Your task to perform on an android device: Do I have any events today? Image 0: 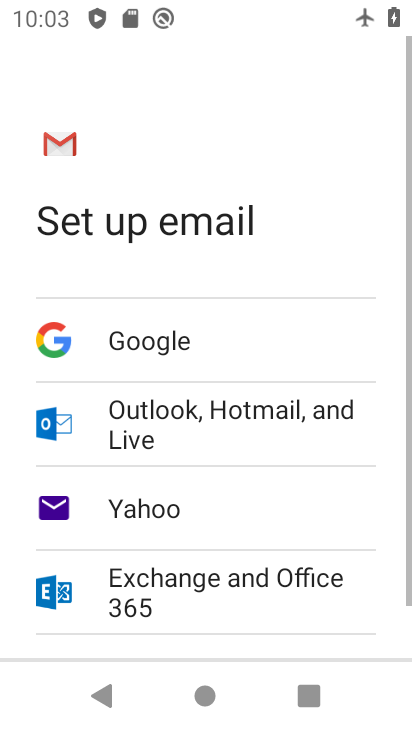
Step 0: press home button
Your task to perform on an android device: Do I have any events today? Image 1: 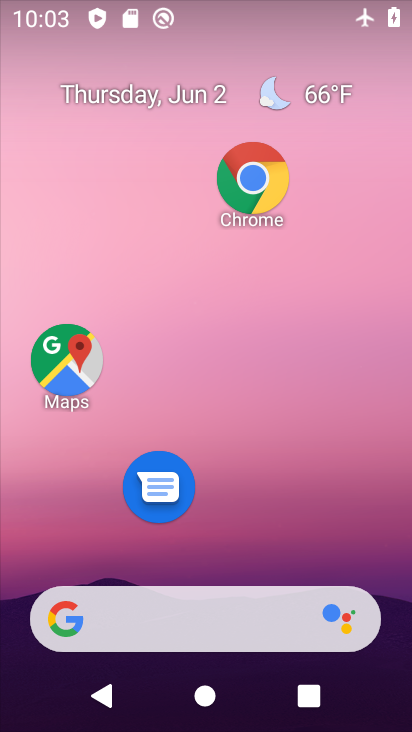
Step 1: drag from (244, 727) to (226, 103)
Your task to perform on an android device: Do I have any events today? Image 2: 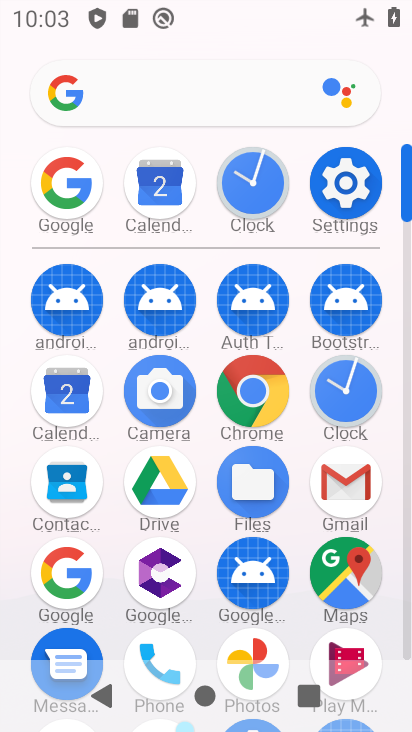
Step 2: click (61, 400)
Your task to perform on an android device: Do I have any events today? Image 3: 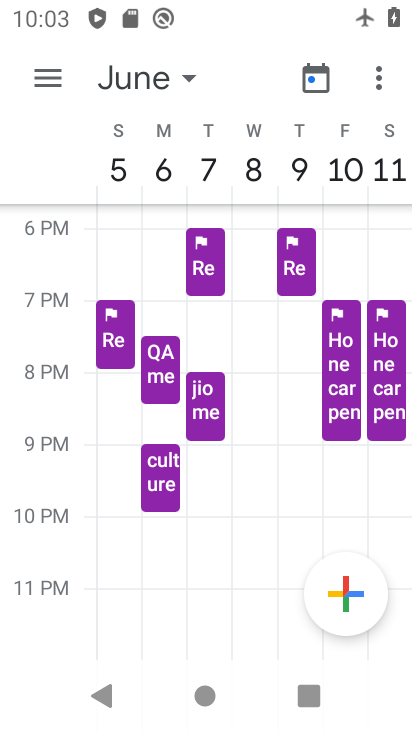
Step 3: click (188, 81)
Your task to perform on an android device: Do I have any events today? Image 4: 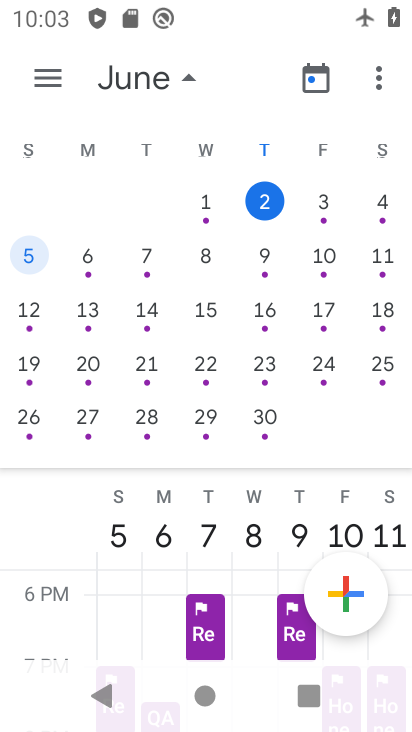
Step 4: click (273, 194)
Your task to perform on an android device: Do I have any events today? Image 5: 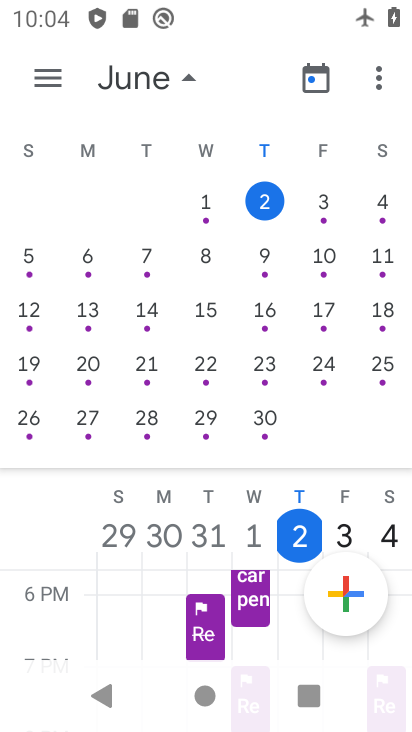
Step 5: click (273, 194)
Your task to perform on an android device: Do I have any events today? Image 6: 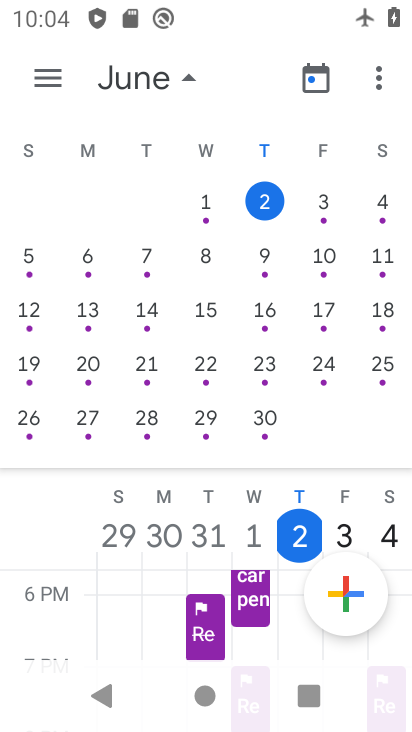
Step 6: click (273, 194)
Your task to perform on an android device: Do I have any events today? Image 7: 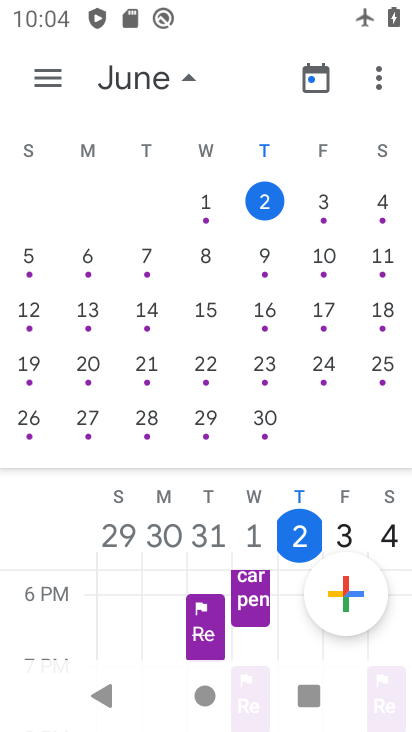
Step 7: click (273, 194)
Your task to perform on an android device: Do I have any events today? Image 8: 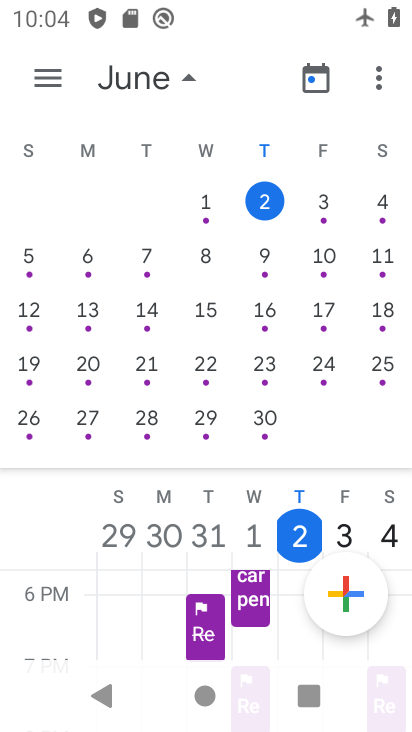
Step 8: click (273, 194)
Your task to perform on an android device: Do I have any events today? Image 9: 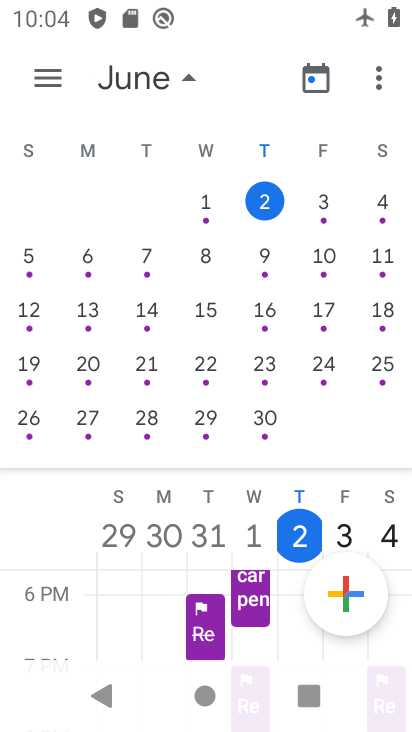
Step 9: click (273, 194)
Your task to perform on an android device: Do I have any events today? Image 10: 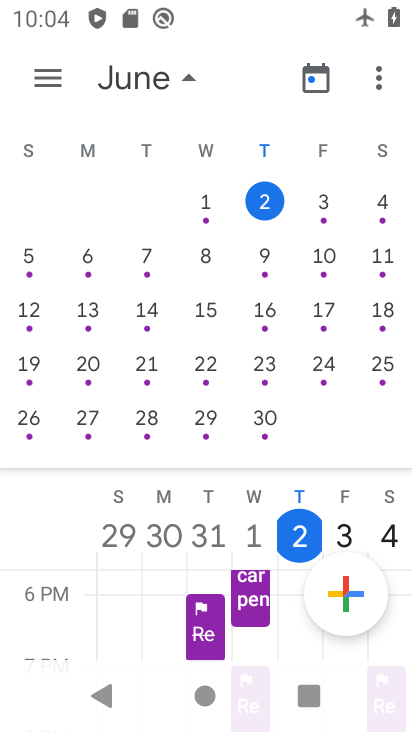
Step 10: click (273, 194)
Your task to perform on an android device: Do I have any events today? Image 11: 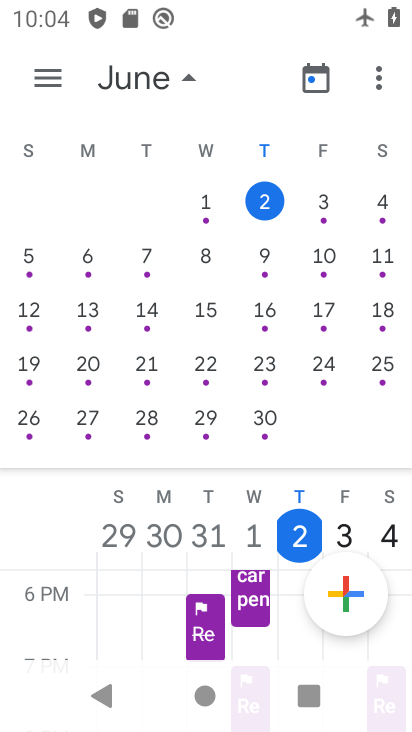
Step 11: click (273, 194)
Your task to perform on an android device: Do I have any events today? Image 12: 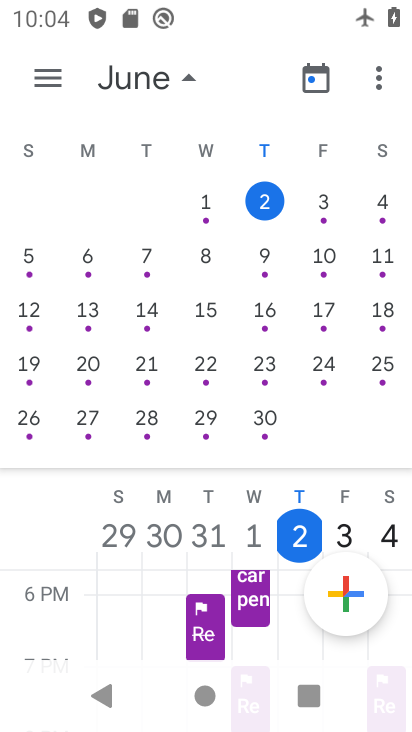
Step 12: click (273, 194)
Your task to perform on an android device: Do I have any events today? Image 13: 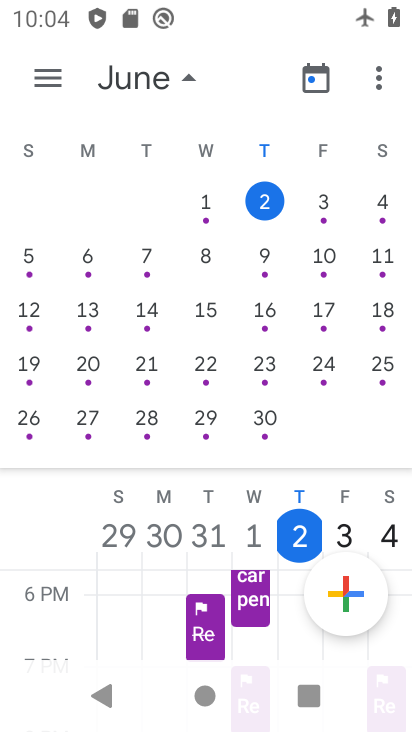
Step 13: click (273, 194)
Your task to perform on an android device: Do I have any events today? Image 14: 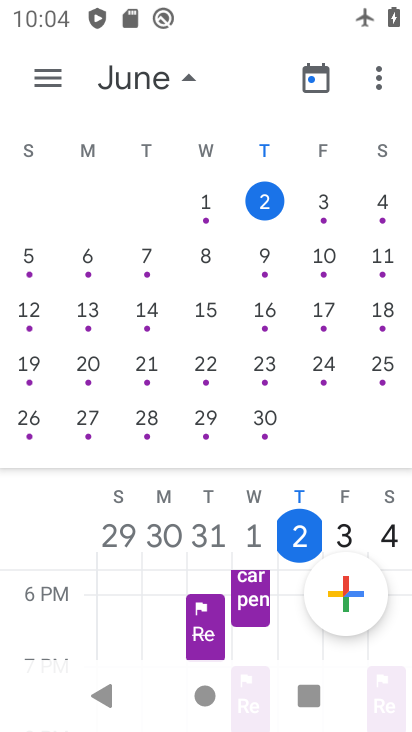
Step 14: click (273, 194)
Your task to perform on an android device: Do I have any events today? Image 15: 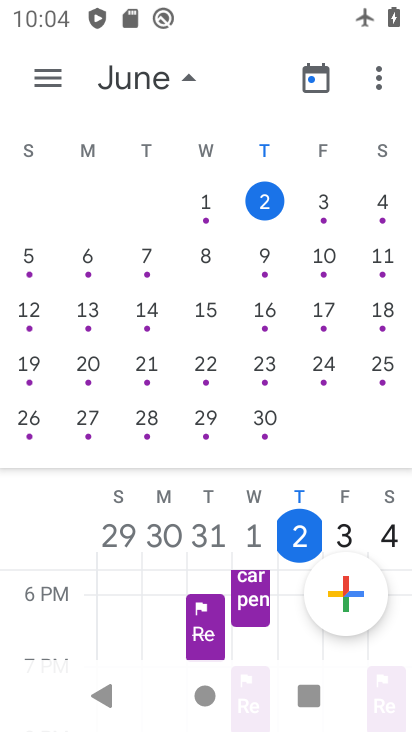
Step 15: click (273, 194)
Your task to perform on an android device: Do I have any events today? Image 16: 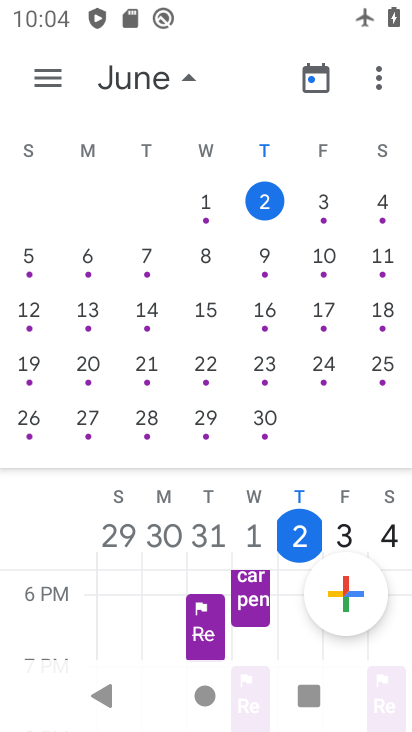
Step 16: click (273, 194)
Your task to perform on an android device: Do I have any events today? Image 17: 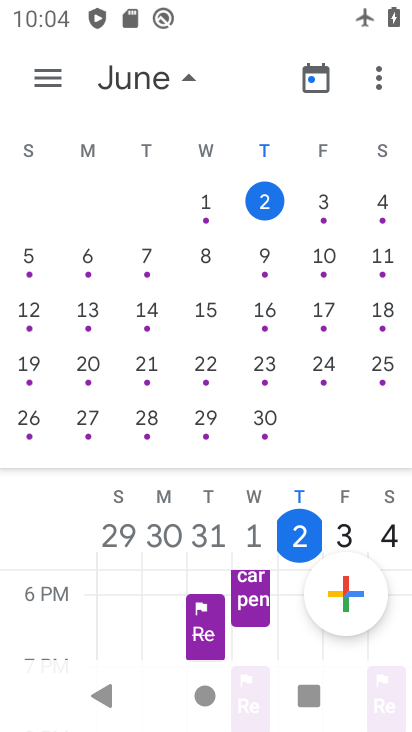
Step 17: click (273, 194)
Your task to perform on an android device: Do I have any events today? Image 18: 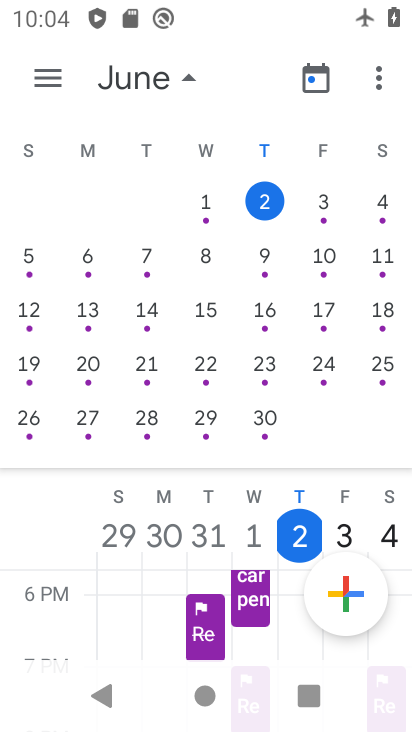
Step 18: click (273, 194)
Your task to perform on an android device: Do I have any events today? Image 19: 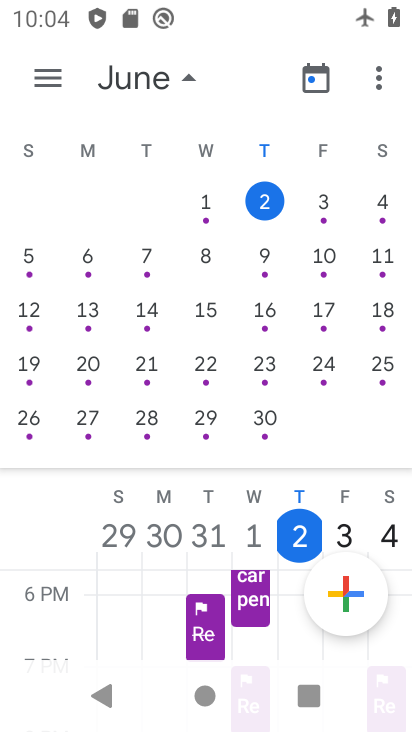
Step 19: click (273, 194)
Your task to perform on an android device: Do I have any events today? Image 20: 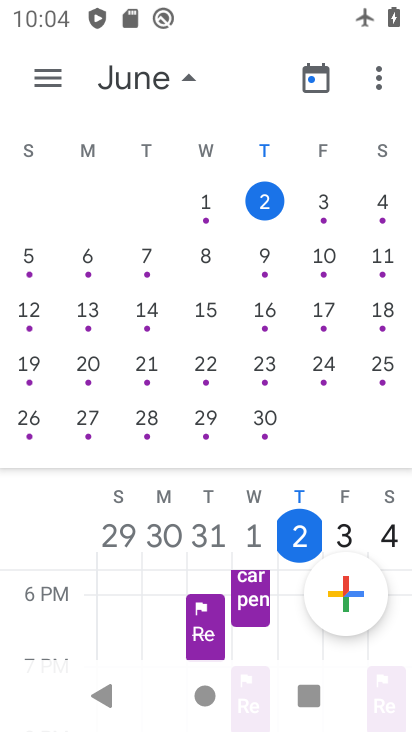
Step 20: click (273, 194)
Your task to perform on an android device: Do I have any events today? Image 21: 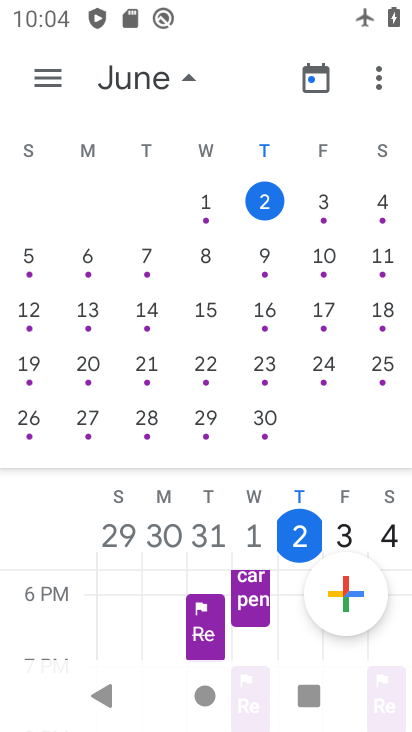
Step 21: click (298, 522)
Your task to perform on an android device: Do I have any events today? Image 22: 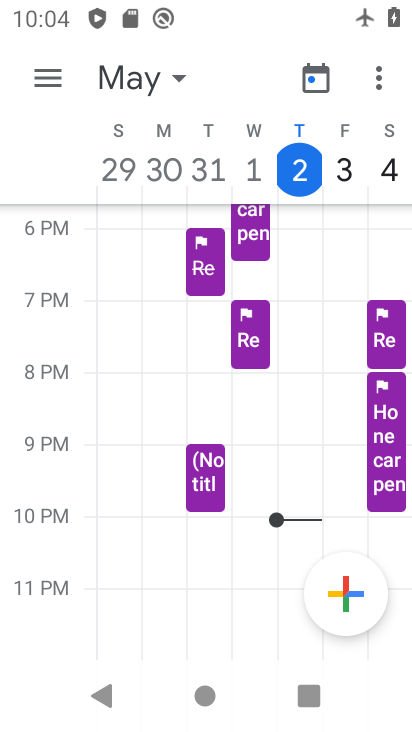
Step 22: click (309, 163)
Your task to perform on an android device: Do I have any events today? Image 23: 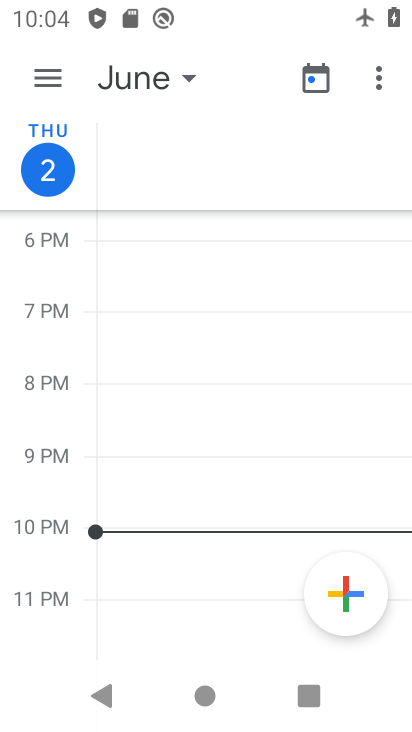
Step 23: task complete